Your task to perform on an android device: toggle show notifications on the lock screen Image 0: 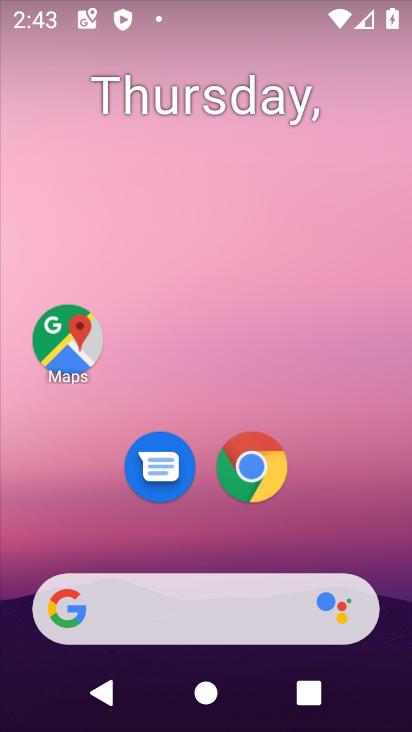
Step 0: drag from (186, 549) to (251, 191)
Your task to perform on an android device: toggle show notifications on the lock screen Image 1: 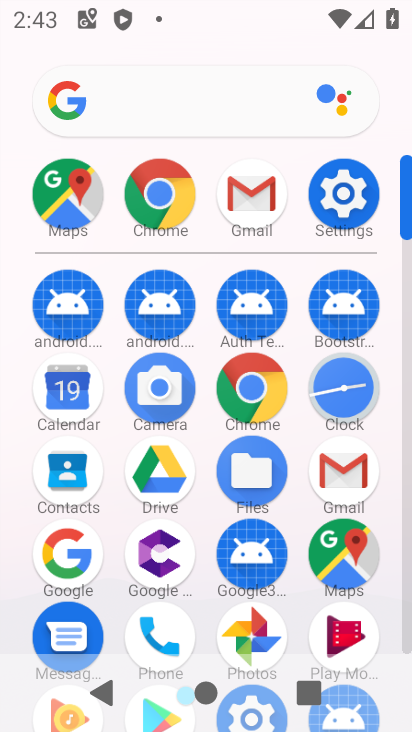
Step 1: click (361, 200)
Your task to perform on an android device: toggle show notifications on the lock screen Image 2: 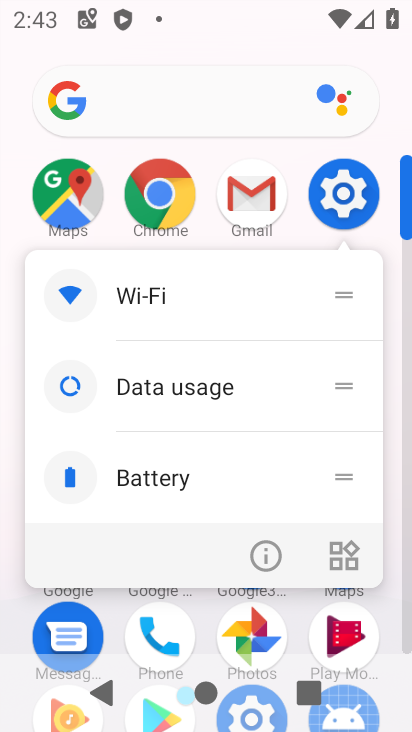
Step 2: click (270, 571)
Your task to perform on an android device: toggle show notifications on the lock screen Image 3: 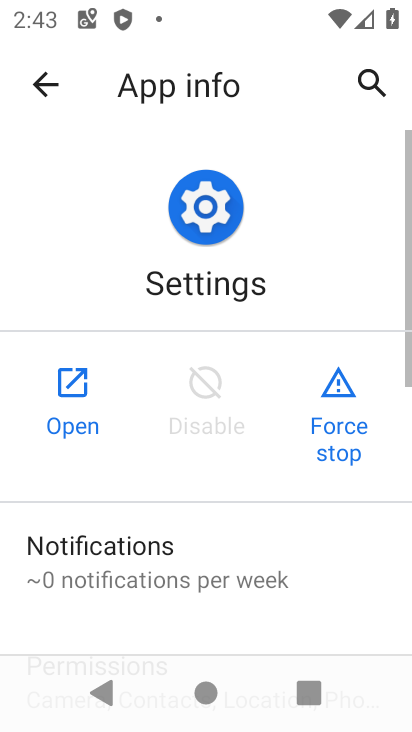
Step 3: click (57, 381)
Your task to perform on an android device: toggle show notifications on the lock screen Image 4: 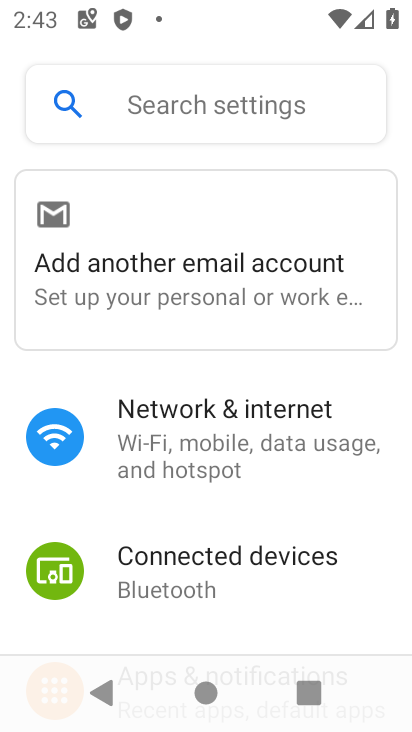
Step 4: drag from (163, 557) to (198, 149)
Your task to perform on an android device: toggle show notifications on the lock screen Image 5: 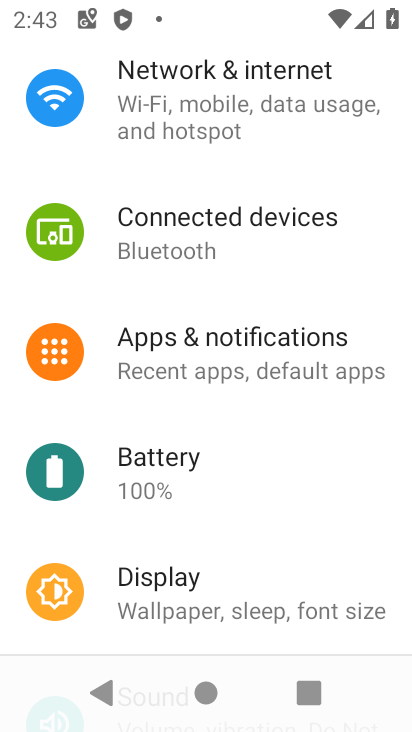
Step 5: click (215, 342)
Your task to perform on an android device: toggle show notifications on the lock screen Image 6: 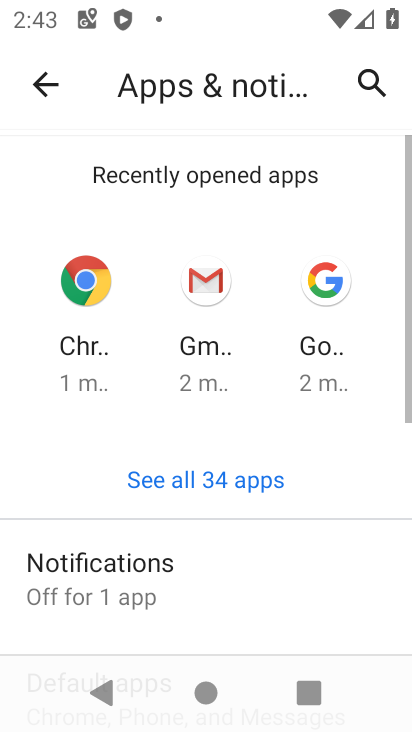
Step 6: drag from (161, 594) to (188, 250)
Your task to perform on an android device: toggle show notifications on the lock screen Image 7: 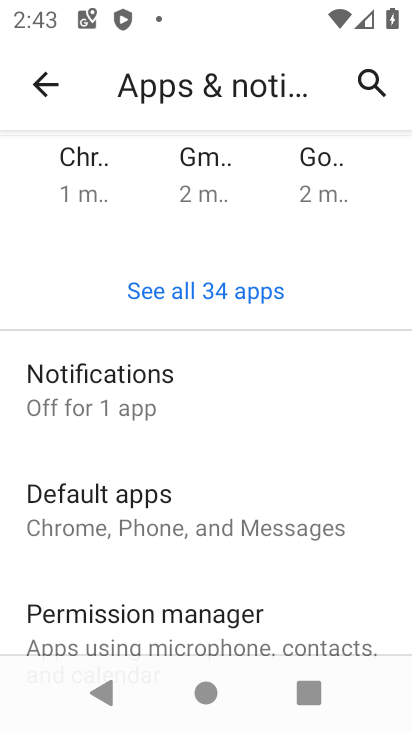
Step 7: click (196, 383)
Your task to perform on an android device: toggle show notifications on the lock screen Image 8: 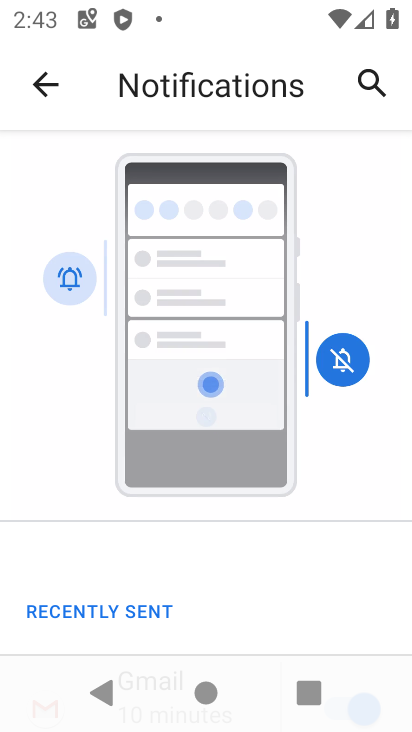
Step 8: drag from (204, 603) to (254, 188)
Your task to perform on an android device: toggle show notifications on the lock screen Image 9: 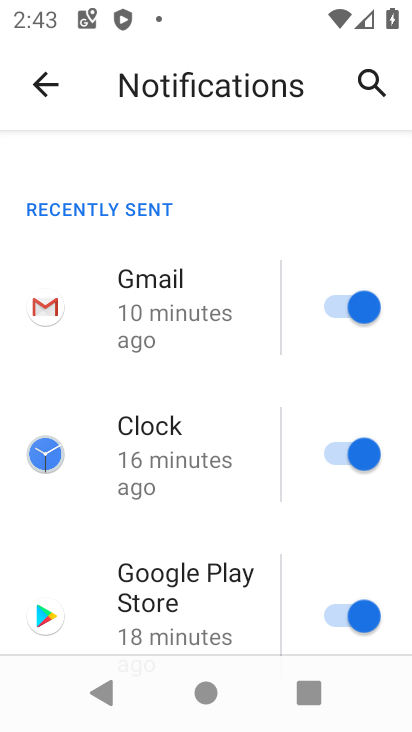
Step 9: drag from (210, 467) to (273, 129)
Your task to perform on an android device: toggle show notifications on the lock screen Image 10: 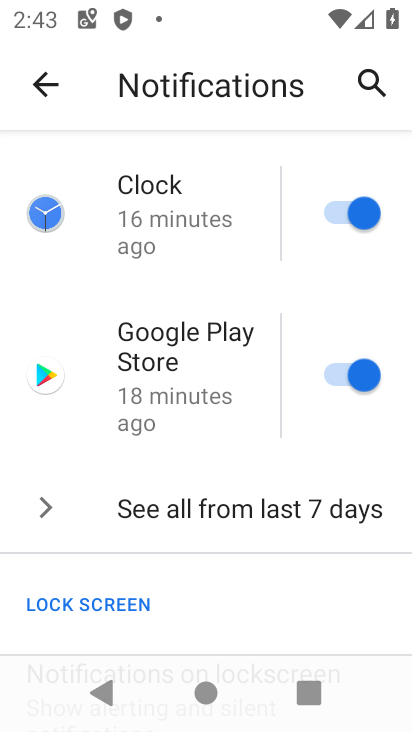
Step 10: drag from (204, 584) to (260, 251)
Your task to perform on an android device: toggle show notifications on the lock screen Image 11: 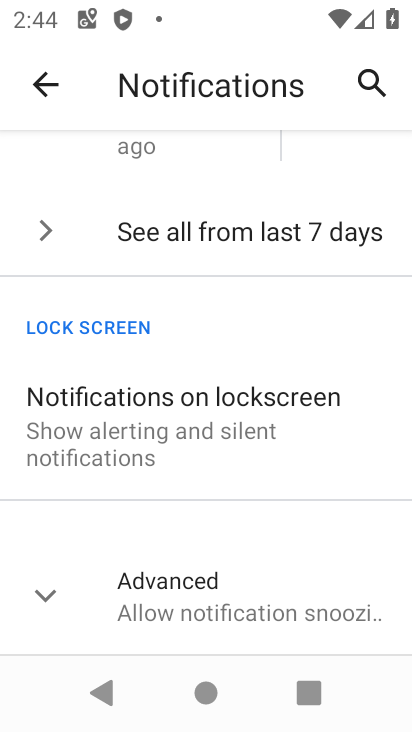
Step 11: click (168, 413)
Your task to perform on an android device: toggle show notifications on the lock screen Image 12: 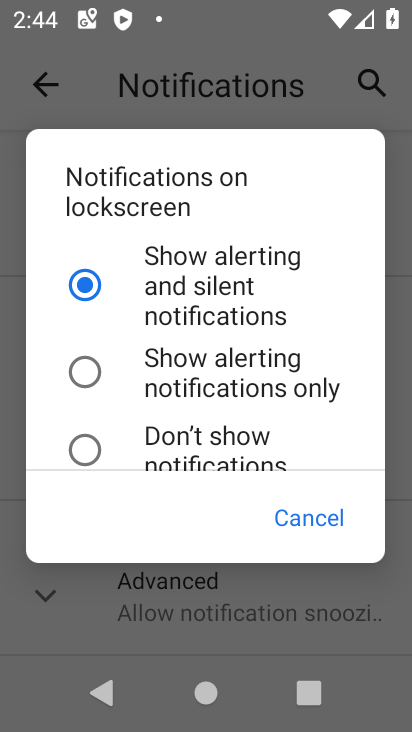
Step 12: click (143, 385)
Your task to perform on an android device: toggle show notifications on the lock screen Image 13: 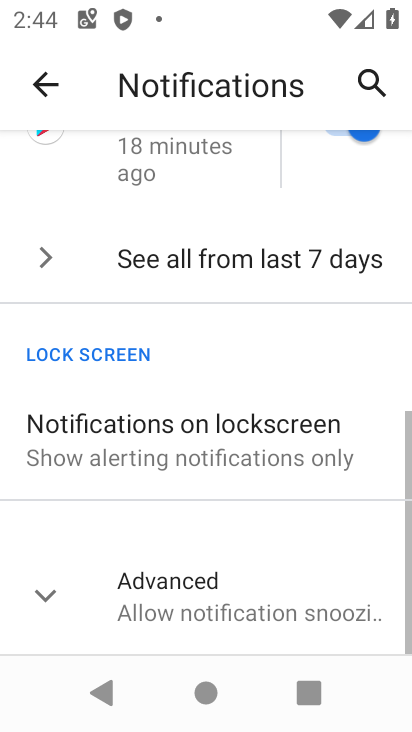
Step 13: task complete